Your task to perform on an android device: Go to privacy settings Image 0: 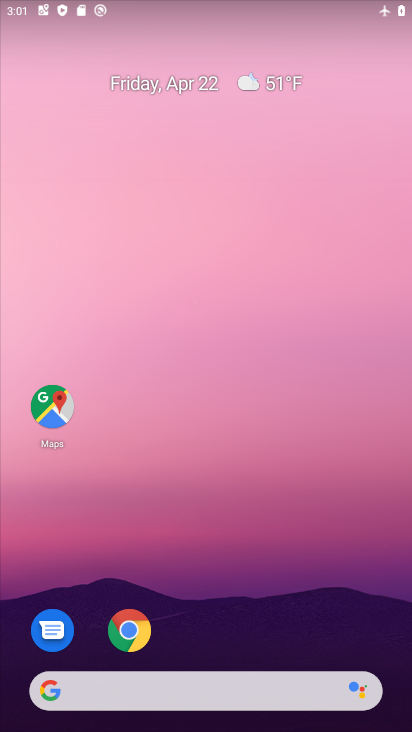
Step 0: drag from (368, 610) to (322, 81)
Your task to perform on an android device: Go to privacy settings Image 1: 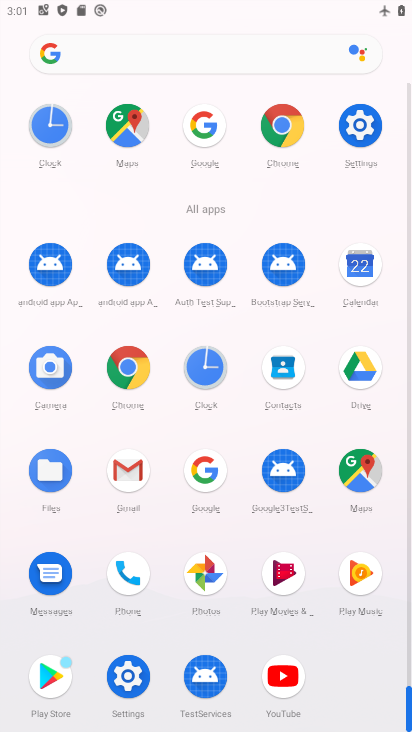
Step 1: drag from (3, 475) to (11, 197)
Your task to perform on an android device: Go to privacy settings Image 2: 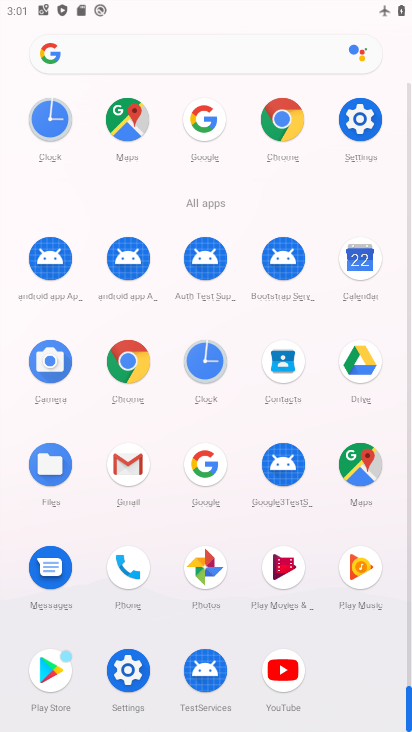
Step 2: click (127, 668)
Your task to perform on an android device: Go to privacy settings Image 3: 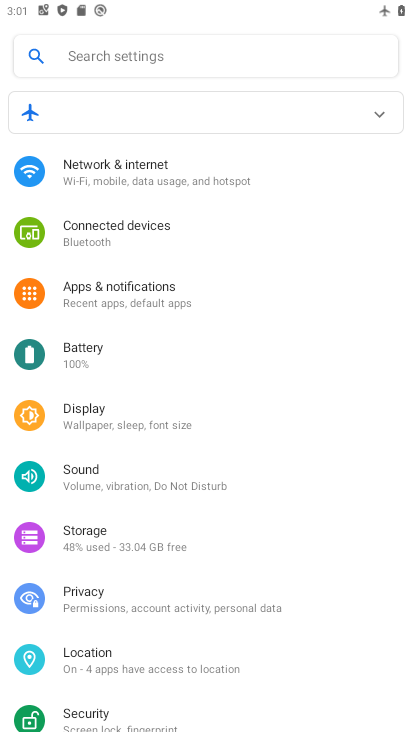
Step 3: drag from (272, 504) to (297, 173)
Your task to perform on an android device: Go to privacy settings Image 4: 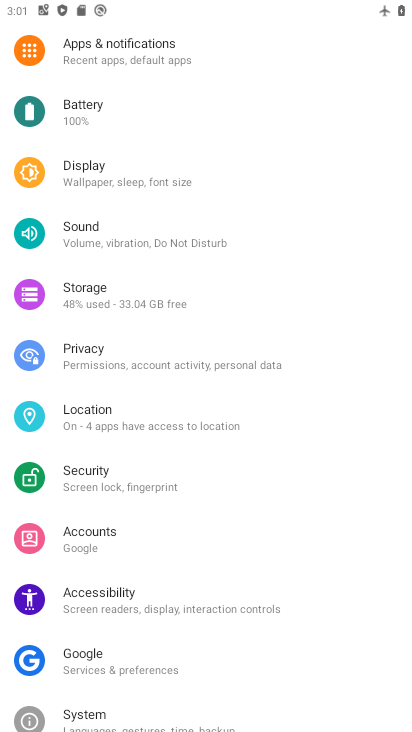
Step 4: drag from (279, 93) to (265, 276)
Your task to perform on an android device: Go to privacy settings Image 5: 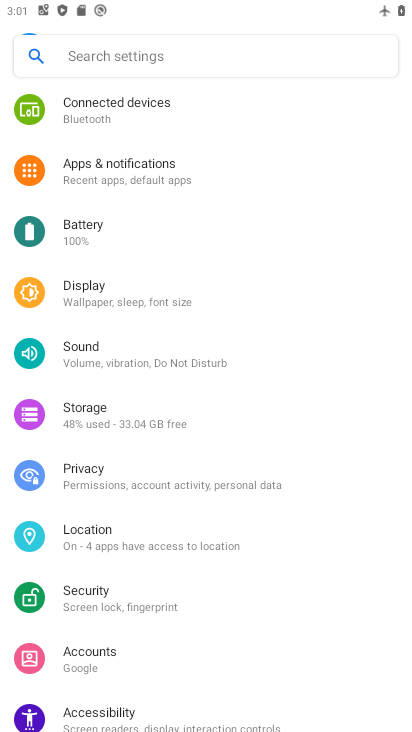
Step 5: drag from (199, 157) to (210, 505)
Your task to perform on an android device: Go to privacy settings Image 6: 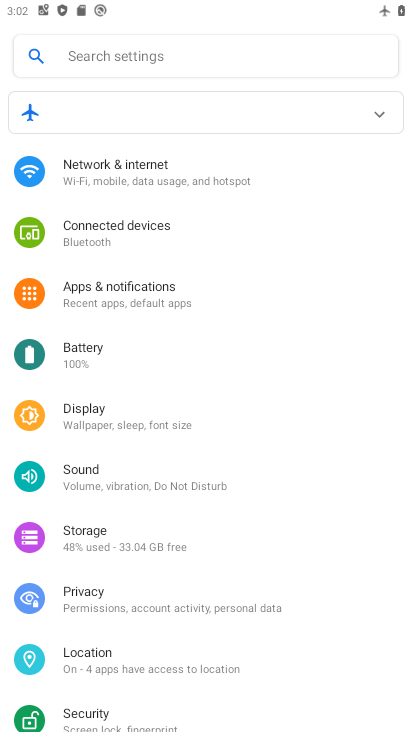
Step 6: press back button
Your task to perform on an android device: Go to privacy settings Image 7: 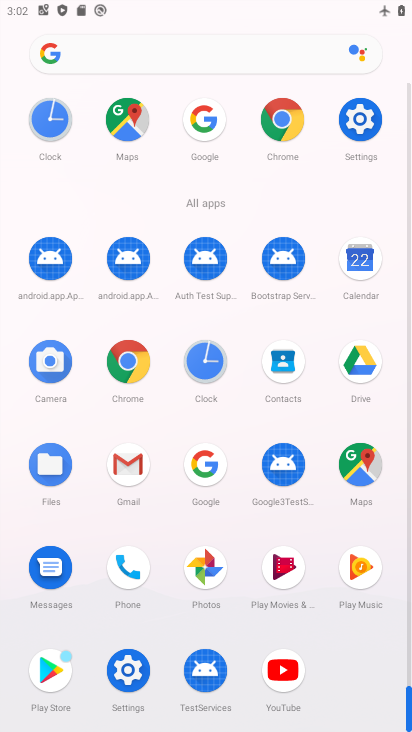
Step 7: click (130, 362)
Your task to perform on an android device: Go to privacy settings Image 8: 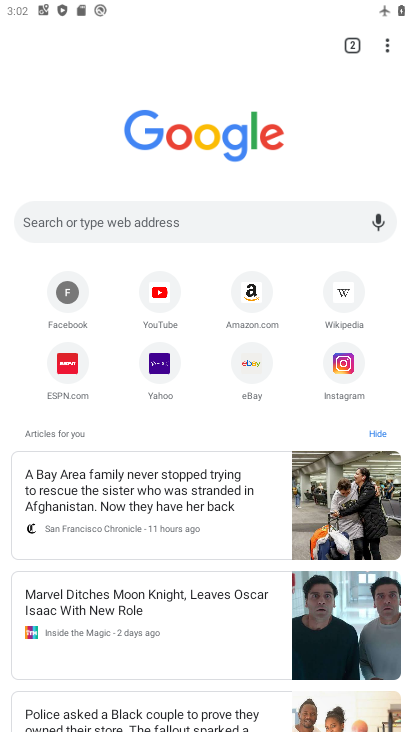
Step 8: drag from (384, 45) to (232, 385)
Your task to perform on an android device: Go to privacy settings Image 9: 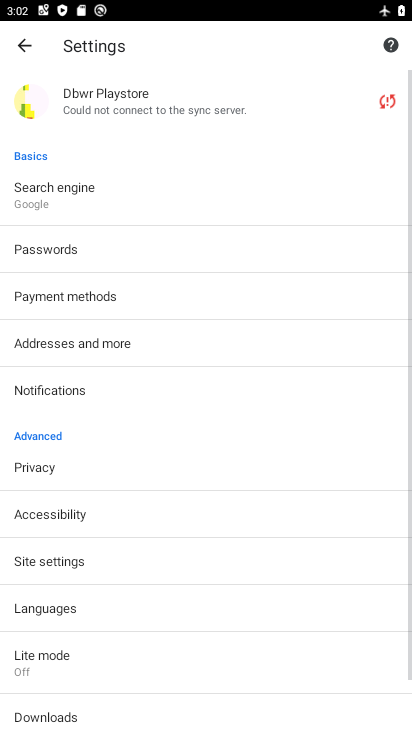
Step 9: drag from (168, 456) to (189, 116)
Your task to perform on an android device: Go to privacy settings Image 10: 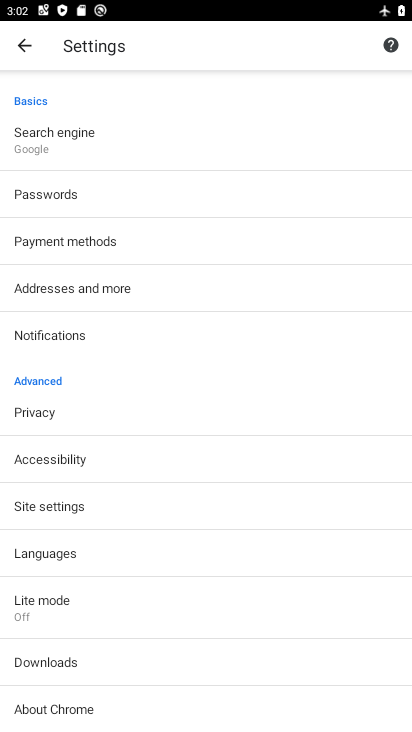
Step 10: drag from (159, 482) to (179, 180)
Your task to perform on an android device: Go to privacy settings Image 11: 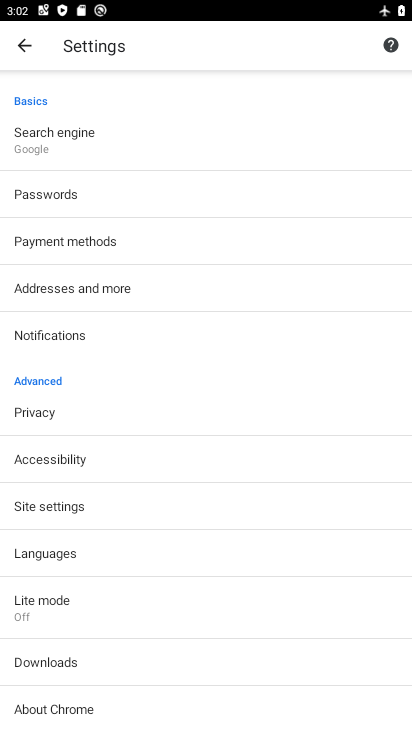
Step 11: click (57, 416)
Your task to perform on an android device: Go to privacy settings Image 12: 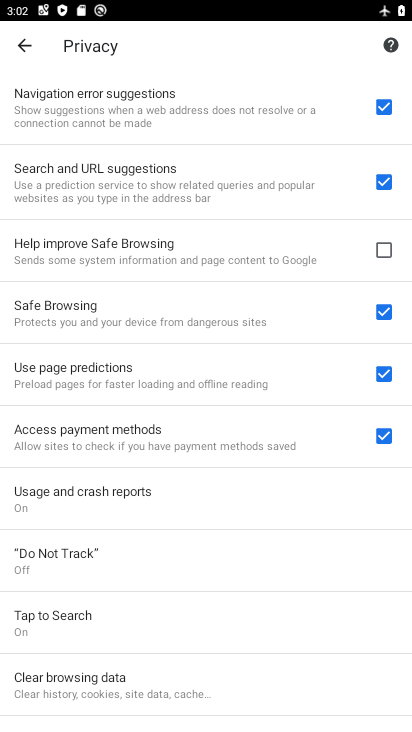
Step 12: task complete